Your task to perform on an android device: toggle javascript in the chrome app Image 0: 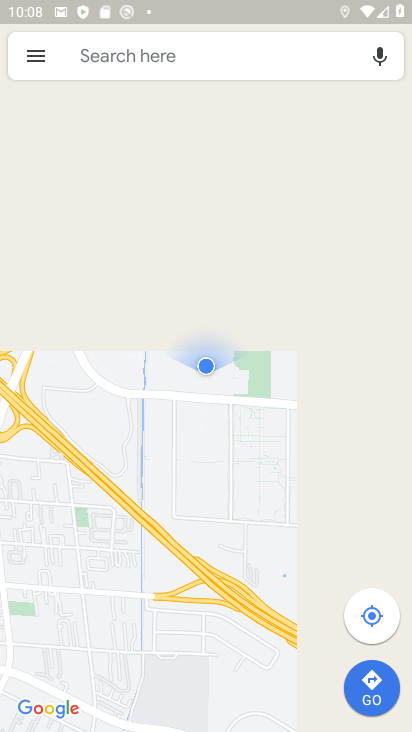
Step 0: press home button
Your task to perform on an android device: toggle javascript in the chrome app Image 1: 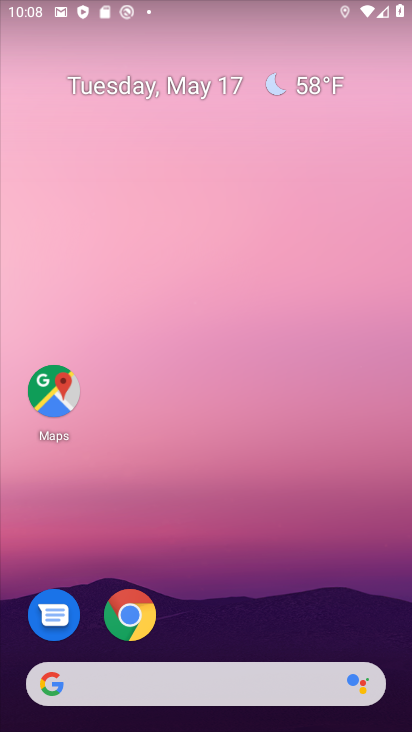
Step 1: click (126, 600)
Your task to perform on an android device: toggle javascript in the chrome app Image 2: 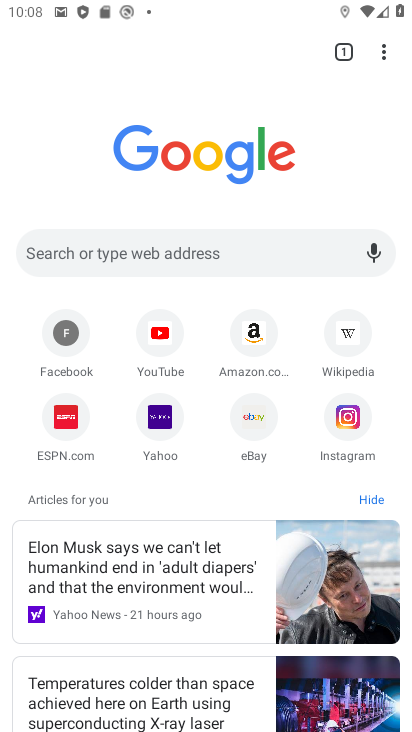
Step 2: drag from (378, 48) to (196, 437)
Your task to perform on an android device: toggle javascript in the chrome app Image 3: 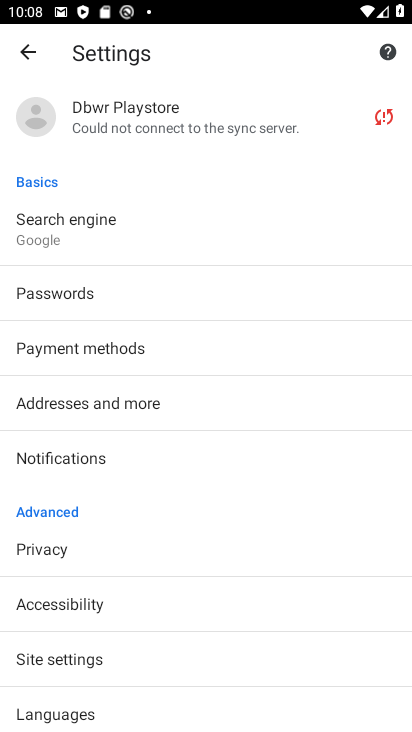
Step 3: drag from (168, 633) to (179, 457)
Your task to perform on an android device: toggle javascript in the chrome app Image 4: 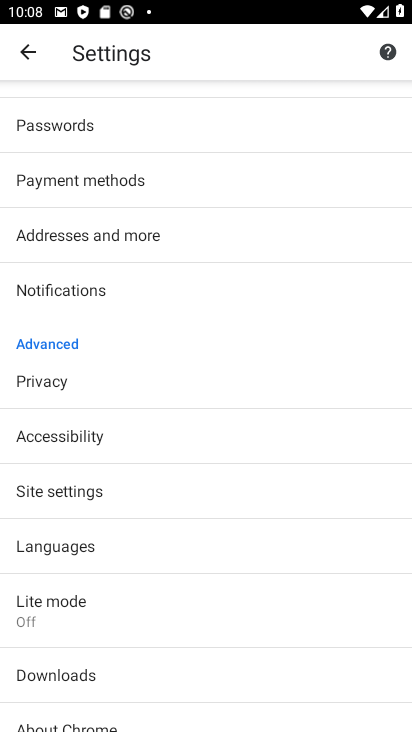
Step 4: click (124, 476)
Your task to perform on an android device: toggle javascript in the chrome app Image 5: 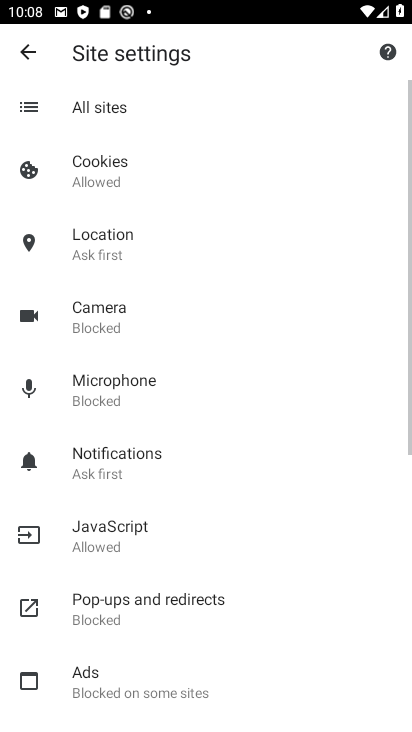
Step 5: click (129, 511)
Your task to perform on an android device: toggle javascript in the chrome app Image 6: 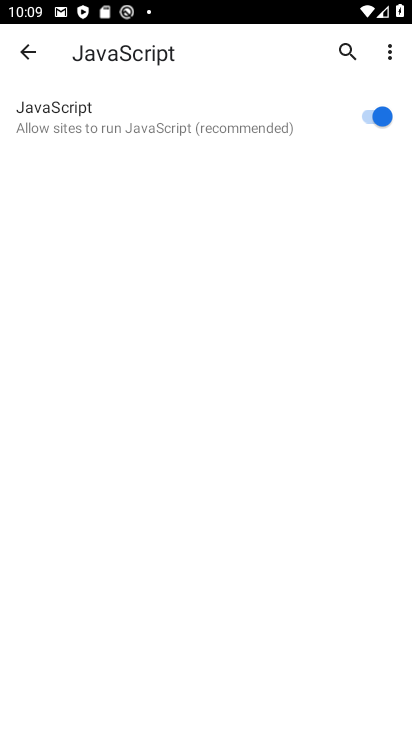
Step 6: click (365, 120)
Your task to perform on an android device: toggle javascript in the chrome app Image 7: 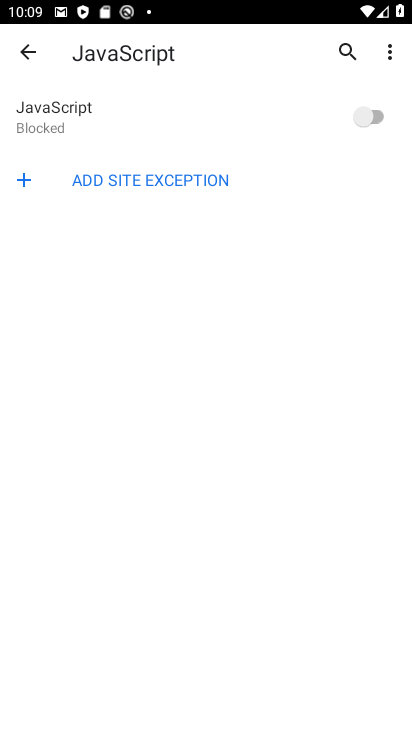
Step 7: task complete